Your task to perform on an android device: Go to settings Image 0: 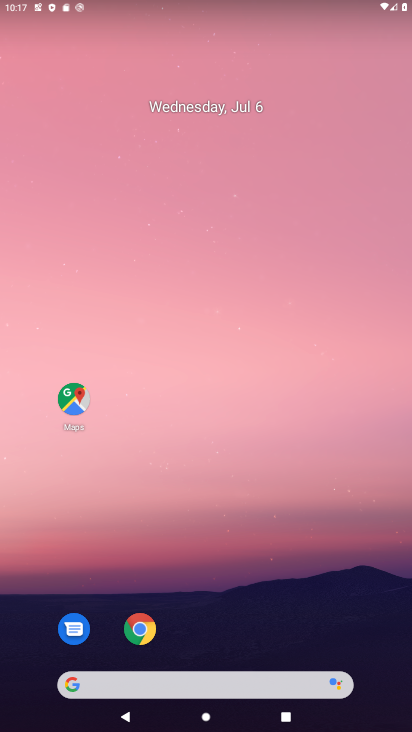
Step 0: drag from (234, 645) to (266, 35)
Your task to perform on an android device: Go to settings Image 1: 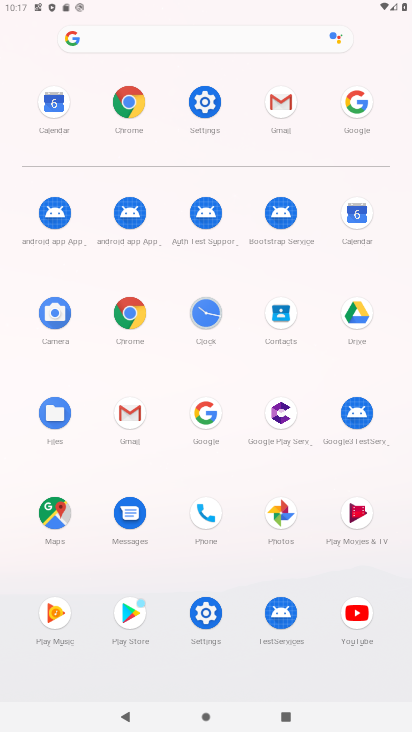
Step 1: click (203, 94)
Your task to perform on an android device: Go to settings Image 2: 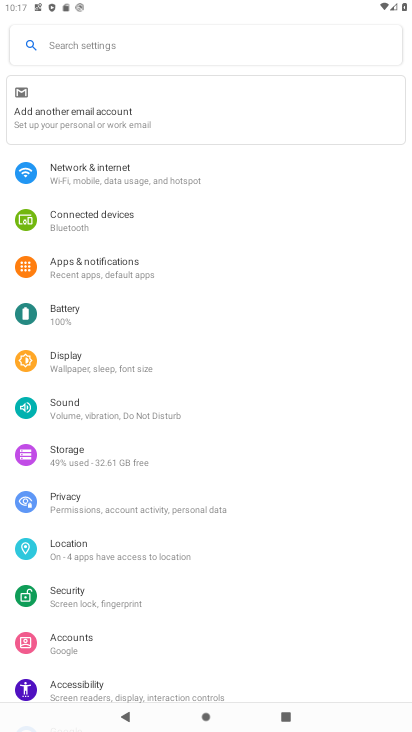
Step 2: task complete